Your task to perform on an android device: Open the Play Movies app and select the watchlist tab. Image 0: 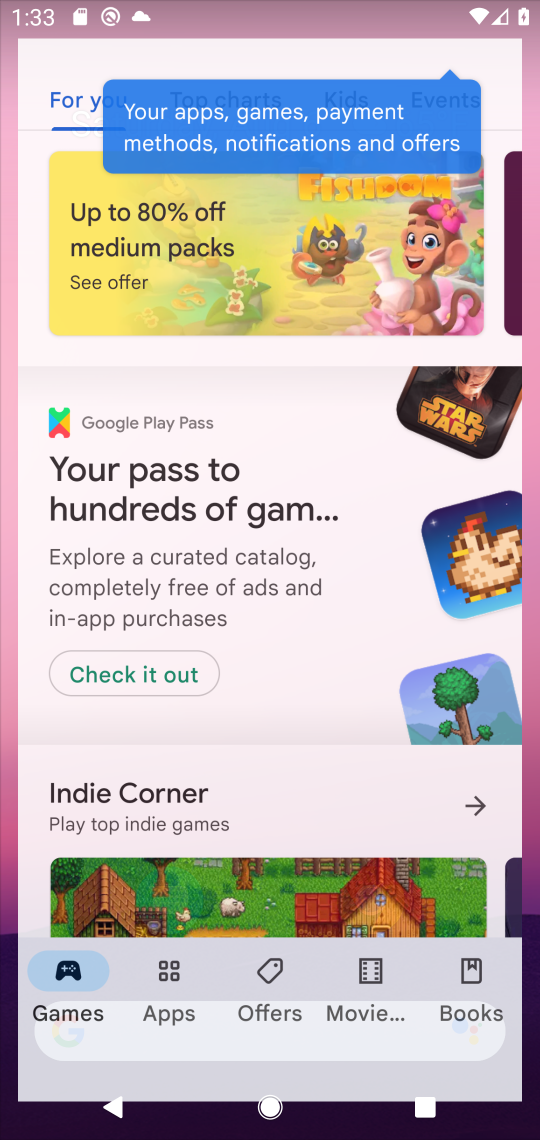
Step 0: press home button
Your task to perform on an android device: Open the Play Movies app and select the watchlist tab. Image 1: 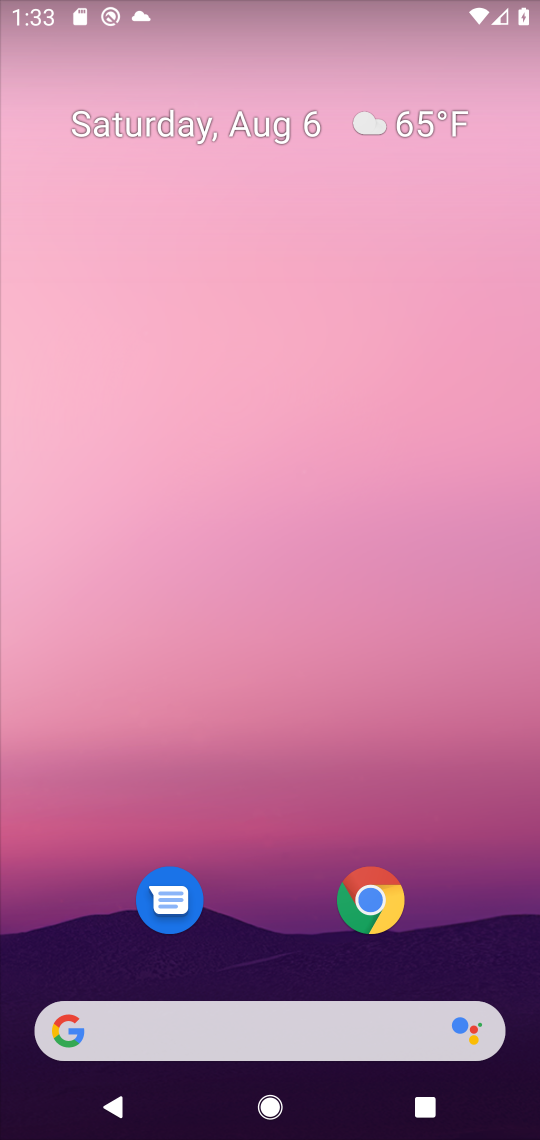
Step 1: drag from (269, 918) to (263, 190)
Your task to perform on an android device: Open the Play Movies app and select the watchlist tab. Image 2: 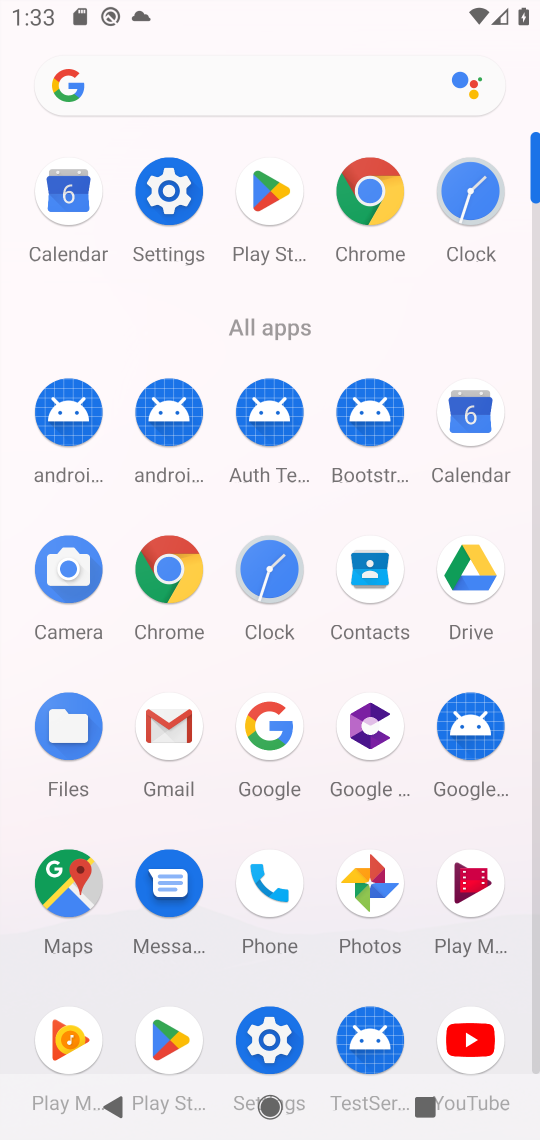
Step 2: click (464, 899)
Your task to perform on an android device: Open the Play Movies app and select the watchlist tab. Image 3: 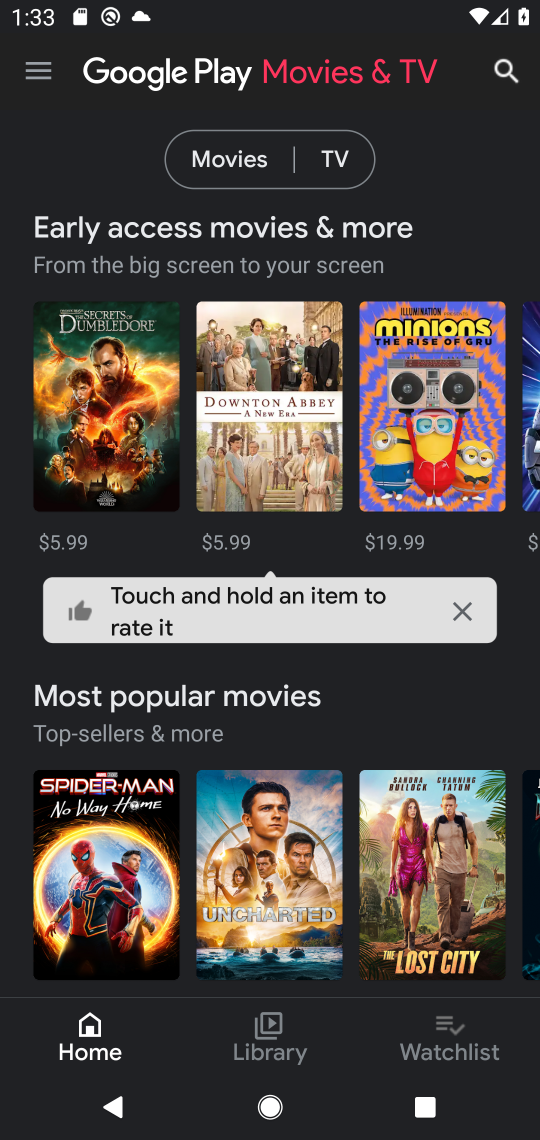
Step 3: click (454, 1040)
Your task to perform on an android device: Open the Play Movies app and select the watchlist tab. Image 4: 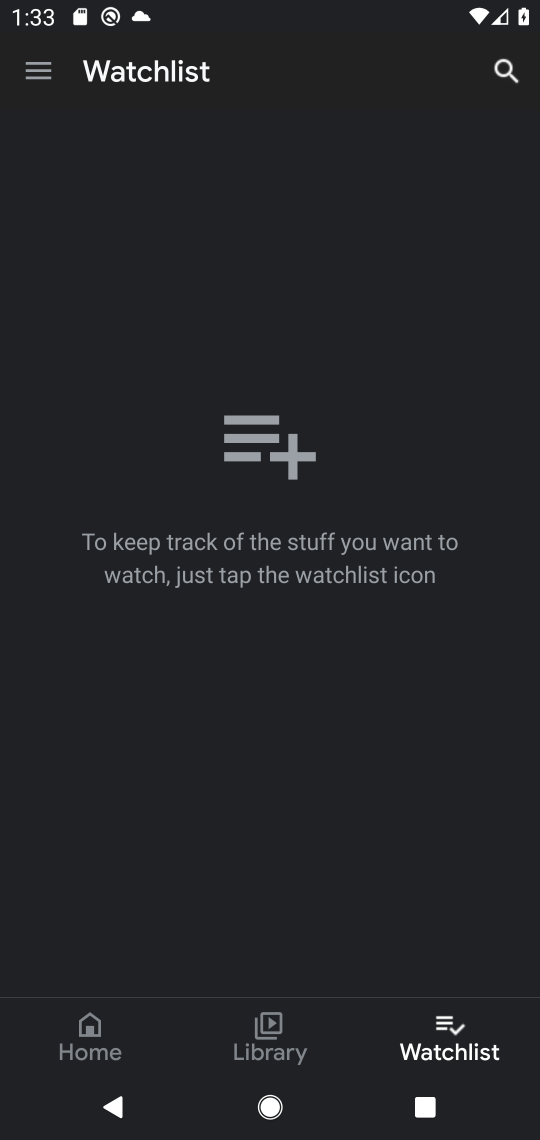
Step 4: task complete